Your task to perform on an android device: change the clock display to digital Image 0: 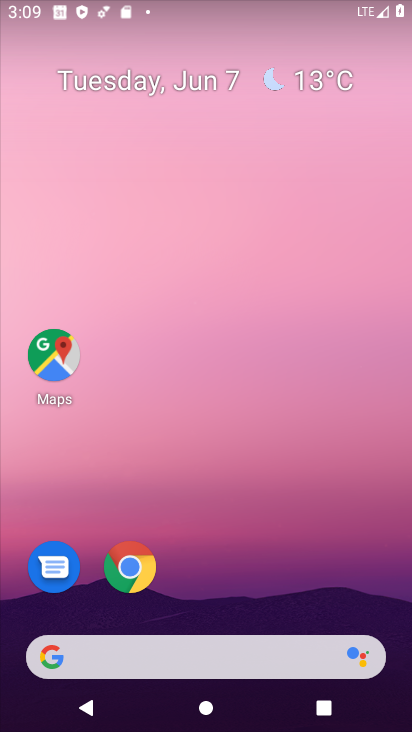
Step 0: press home button
Your task to perform on an android device: change the clock display to digital Image 1: 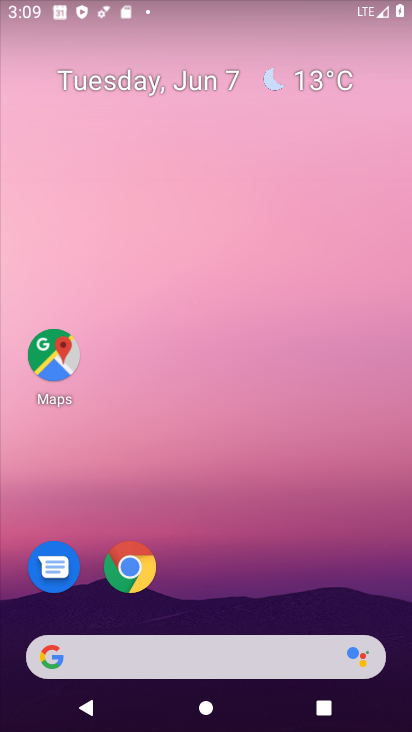
Step 1: drag from (248, 523) to (131, 134)
Your task to perform on an android device: change the clock display to digital Image 2: 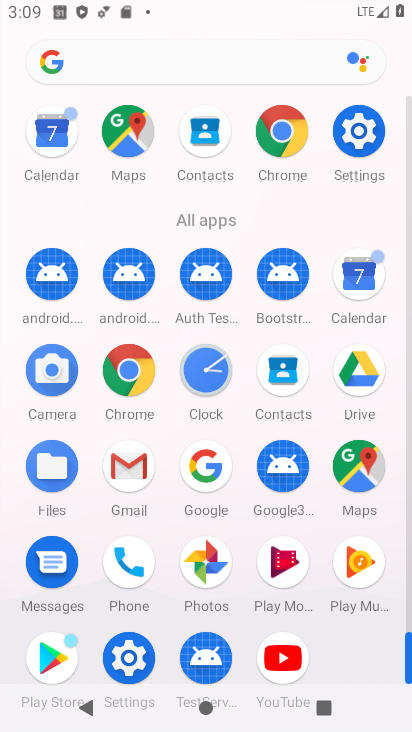
Step 2: click (181, 382)
Your task to perform on an android device: change the clock display to digital Image 3: 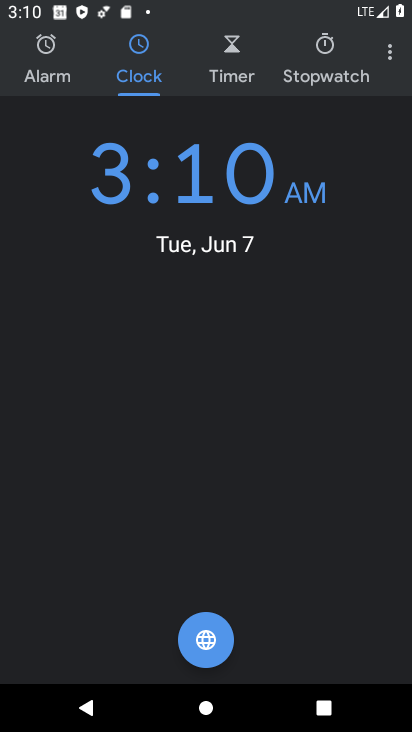
Step 3: click (381, 58)
Your task to perform on an android device: change the clock display to digital Image 4: 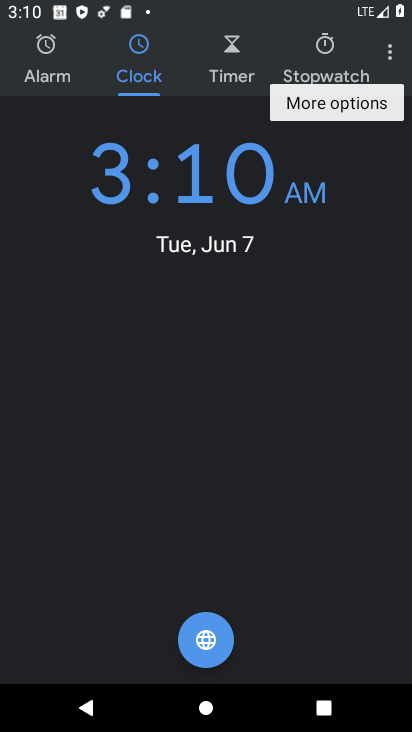
Step 4: click (381, 58)
Your task to perform on an android device: change the clock display to digital Image 5: 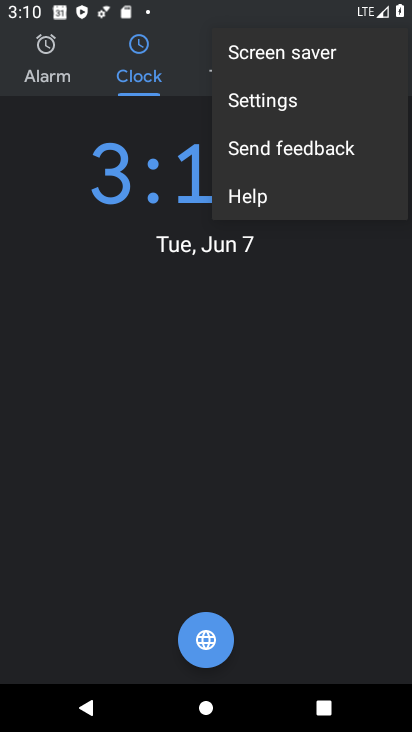
Step 5: click (309, 92)
Your task to perform on an android device: change the clock display to digital Image 6: 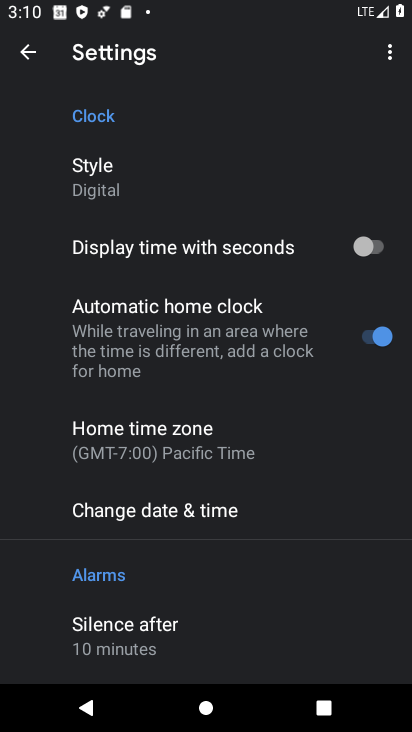
Step 6: task complete